Your task to perform on an android device: Open privacy settings Image 0: 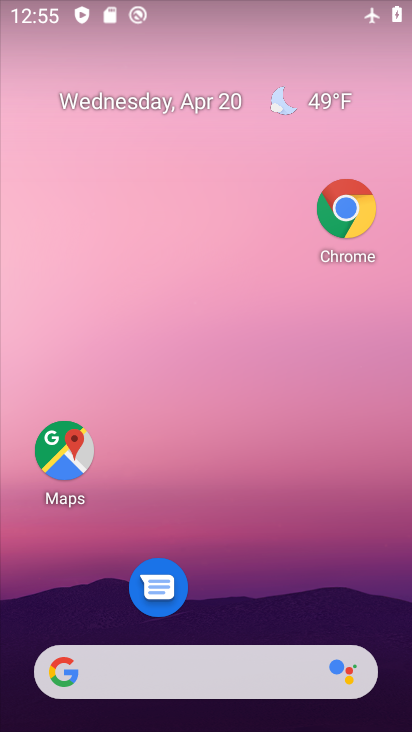
Step 0: drag from (217, 603) to (257, 115)
Your task to perform on an android device: Open privacy settings Image 1: 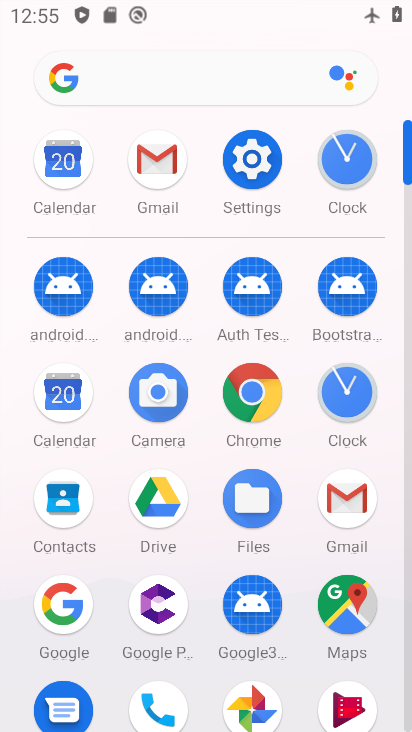
Step 1: click (256, 171)
Your task to perform on an android device: Open privacy settings Image 2: 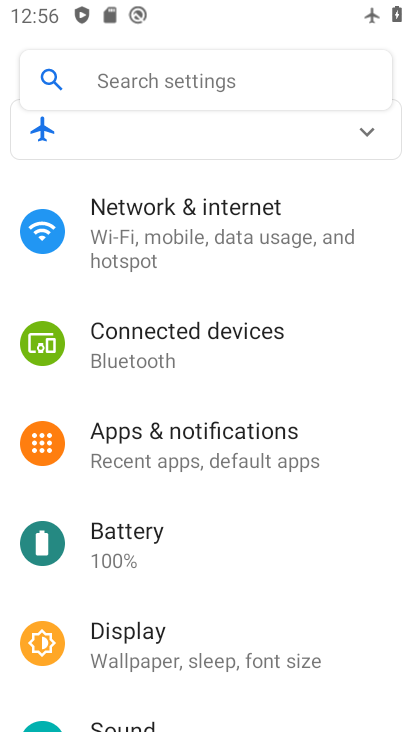
Step 2: drag from (187, 564) to (259, 190)
Your task to perform on an android device: Open privacy settings Image 3: 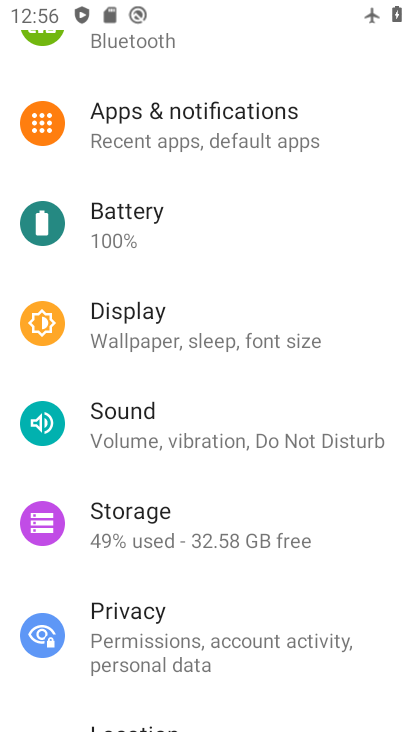
Step 3: click (134, 608)
Your task to perform on an android device: Open privacy settings Image 4: 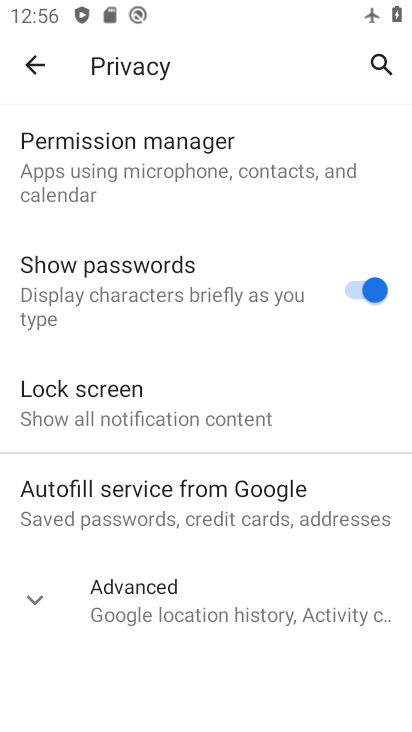
Step 4: task complete